Your task to perform on an android device: Open Google Chrome and open the bookmarks view Image 0: 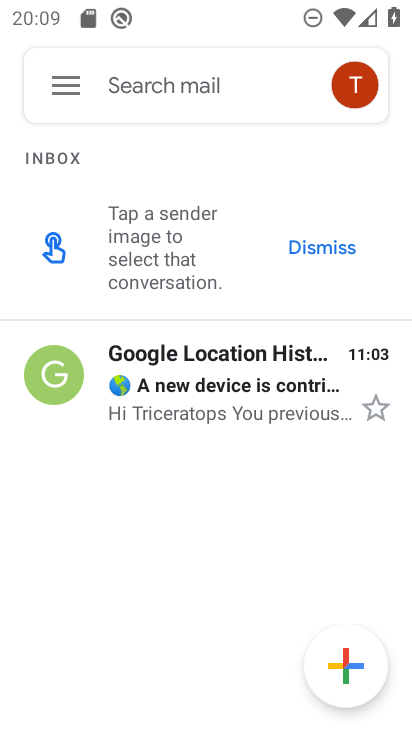
Step 0: press home button
Your task to perform on an android device: Open Google Chrome and open the bookmarks view Image 1: 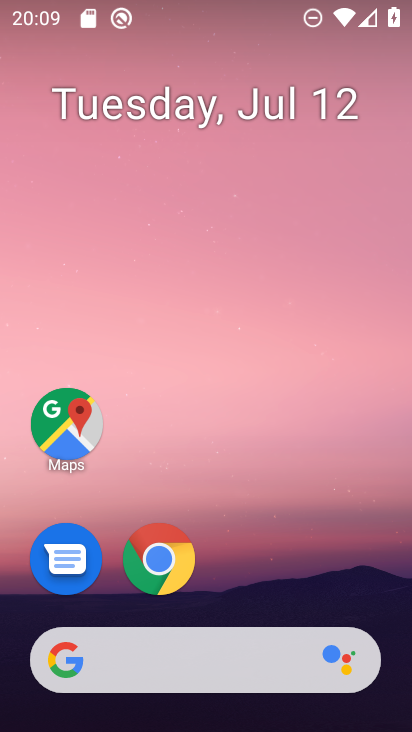
Step 1: drag from (367, 556) to (370, 84)
Your task to perform on an android device: Open Google Chrome and open the bookmarks view Image 2: 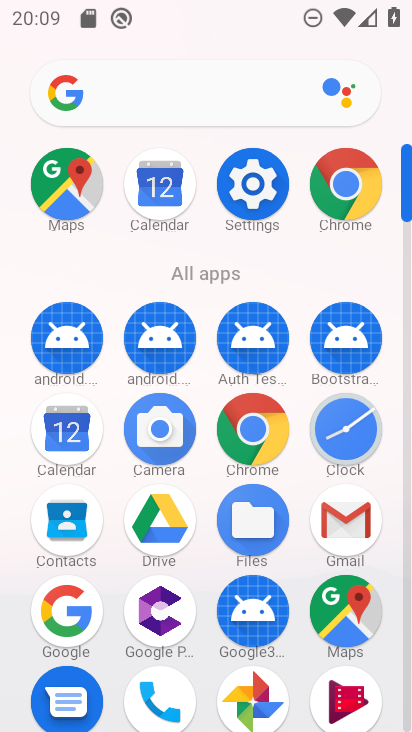
Step 2: click (254, 432)
Your task to perform on an android device: Open Google Chrome and open the bookmarks view Image 3: 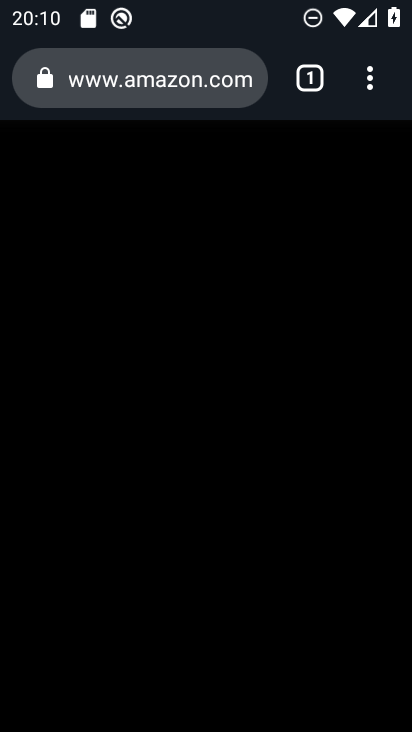
Step 3: click (371, 80)
Your task to perform on an android device: Open Google Chrome and open the bookmarks view Image 4: 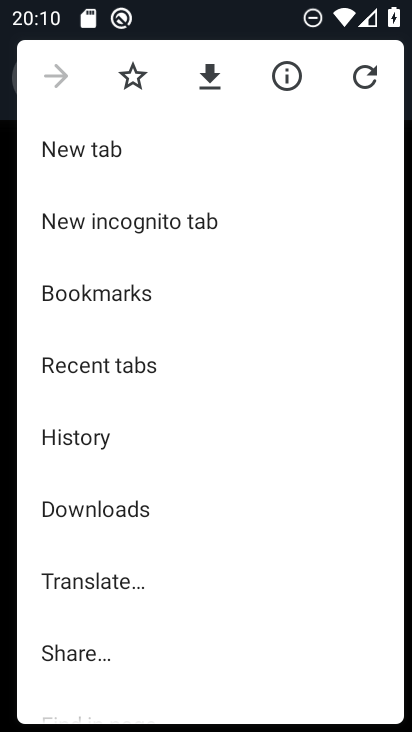
Step 4: drag from (305, 433) to (310, 270)
Your task to perform on an android device: Open Google Chrome and open the bookmarks view Image 5: 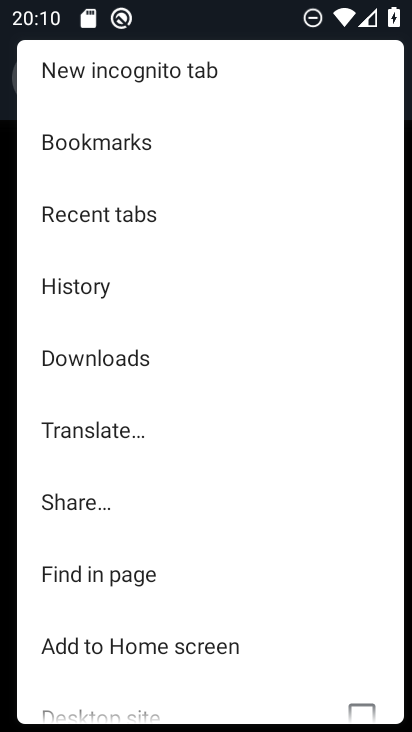
Step 5: drag from (316, 475) to (310, 242)
Your task to perform on an android device: Open Google Chrome and open the bookmarks view Image 6: 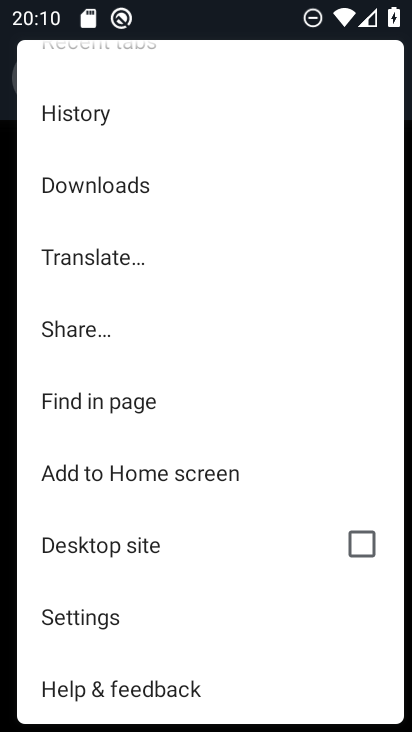
Step 6: drag from (307, 434) to (295, 248)
Your task to perform on an android device: Open Google Chrome and open the bookmarks view Image 7: 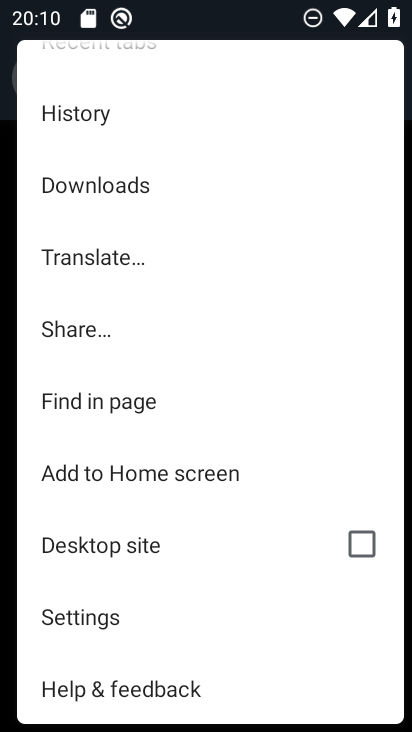
Step 7: drag from (296, 225) to (296, 359)
Your task to perform on an android device: Open Google Chrome and open the bookmarks view Image 8: 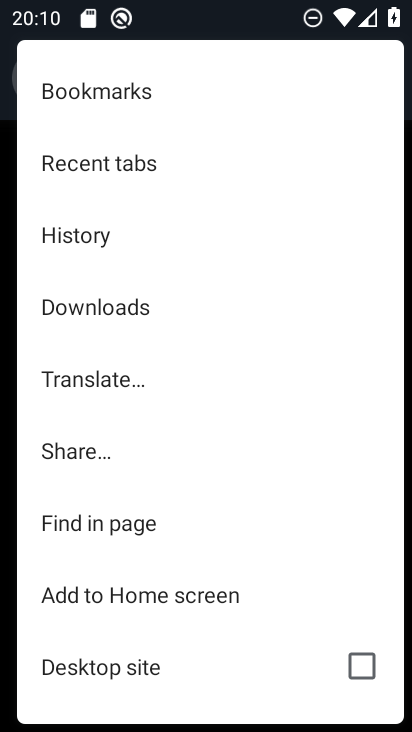
Step 8: drag from (299, 202) to (304, 374)
Your task to perform on an android device: Open Google Chrome and open the bookmarks view Image 9: 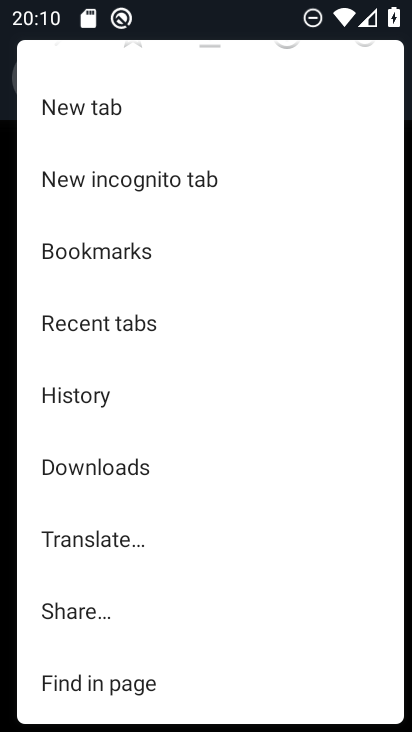
Step 9: drag from (303, 167) to (308, 365)
Your task to perform on an android device: Open Google Chrome and open the bookmarks view Image 10: 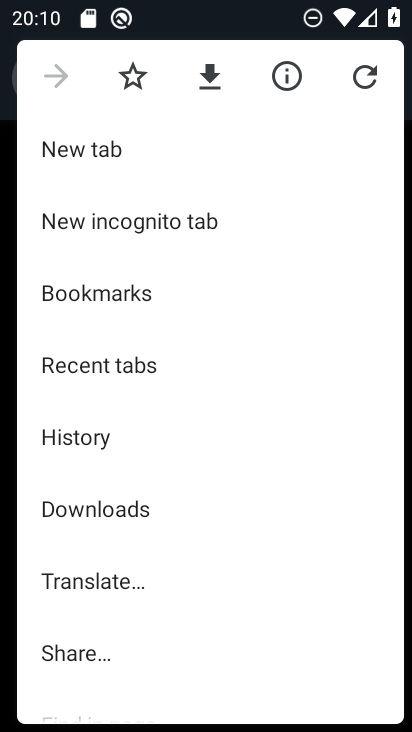
Step 10: click (153, 293)
Your task to perform on an android device: Open Google Chrome and open the bookmarks view Image 11: 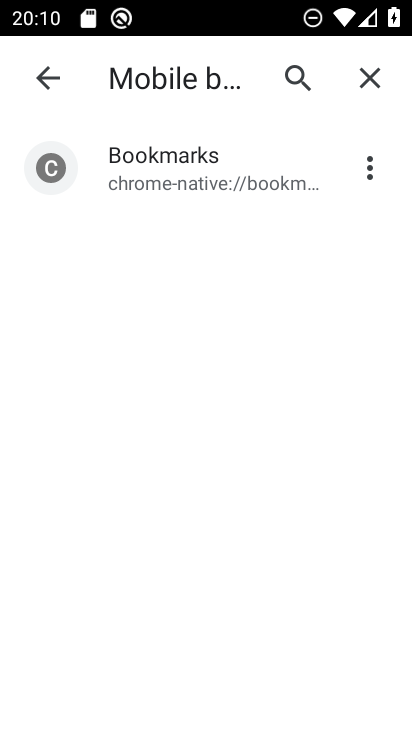
Step 11: task complete